Your task to perform on an android device: delete browsing data in the chrome app Image 0: 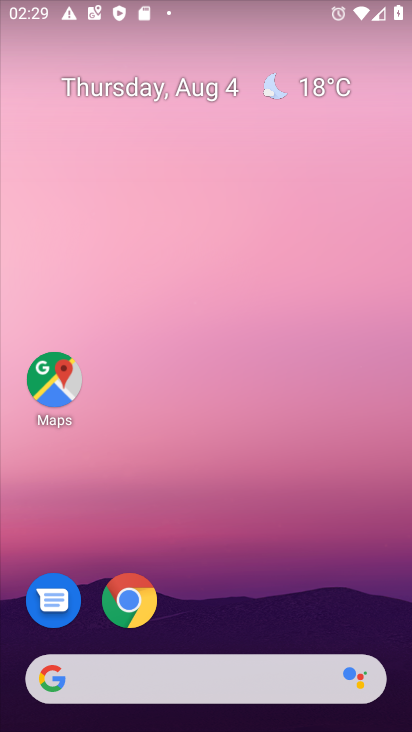
Step 0: click (126, 602)
Your task to perform on an android device: delete browsing data in the chrome app Image 1: 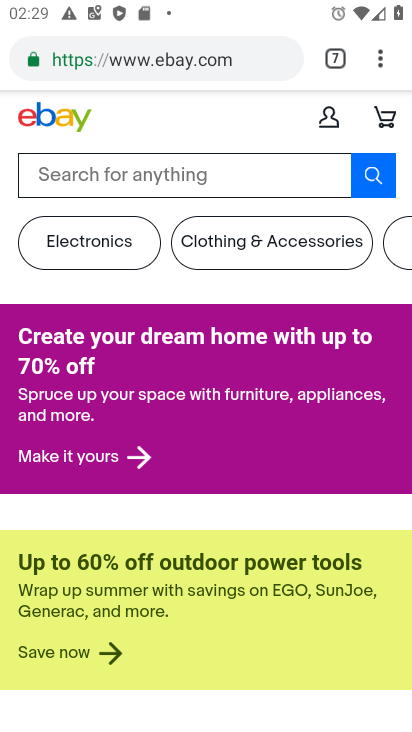
Step 1: drag from (383, 53) to (237, 633)
Your task to perform on an android device: delete browsing data in the chrome app Image 2: 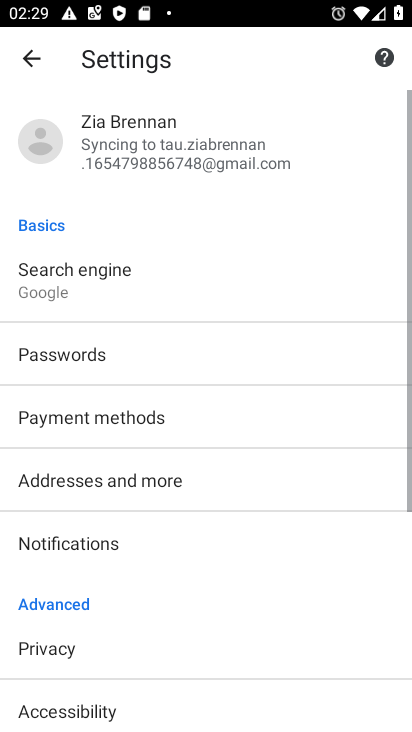
Step 2: drag from (203, 656) to (293, 270)
Your task to perform on an android device: delete browsing data in the chrome app Image 3: 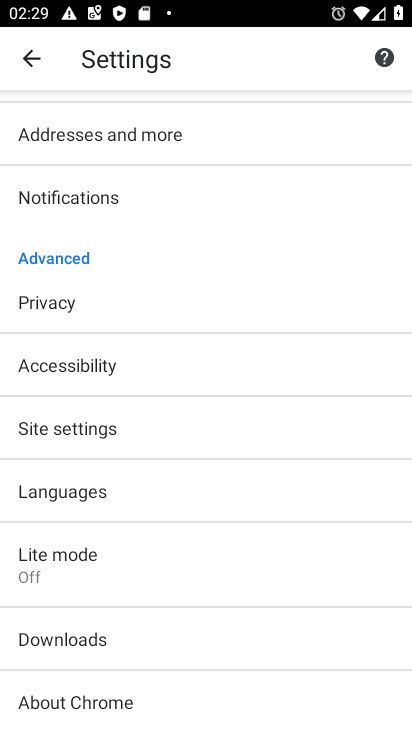
Step 3: click (65, 304)
Your task to perform on an android device: delete browsing data in the chrome app Image 4: 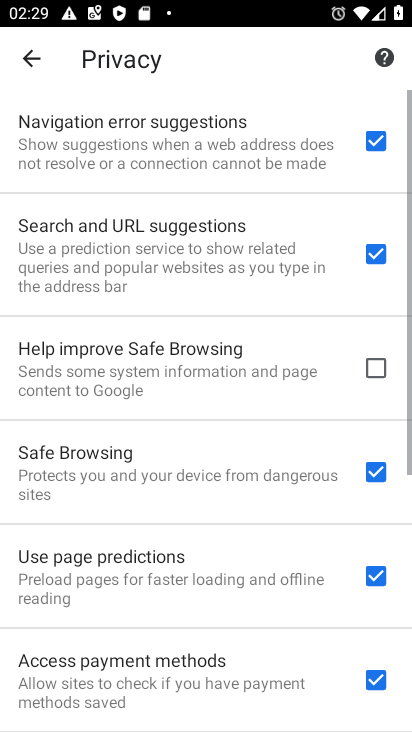
Step 4: drag from (260, 674) to (390, 110)
Your task to perform on an android device: delete browsing data in the chrome app Image 5: 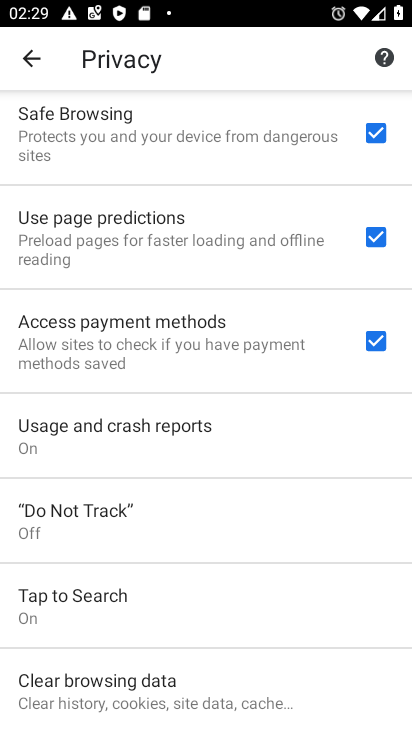
Step 5: click (157, 699)
Your task to perform on an android device: delete browsing data in the chrome app Image 6: 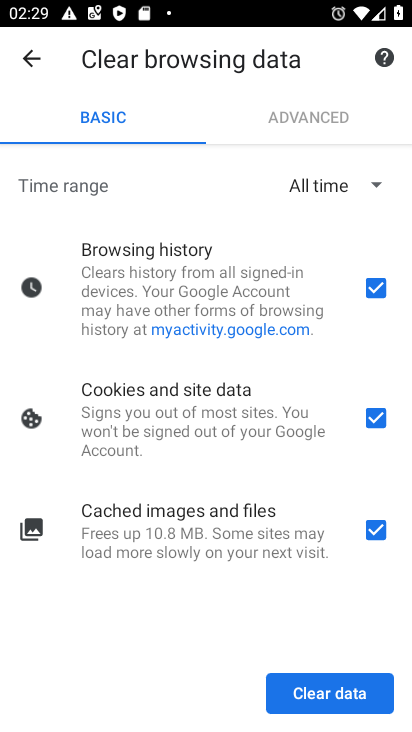
Step 6: click (376, 519)
Your task to perform on an android device: delete browsing data in the chrome app Image 7: 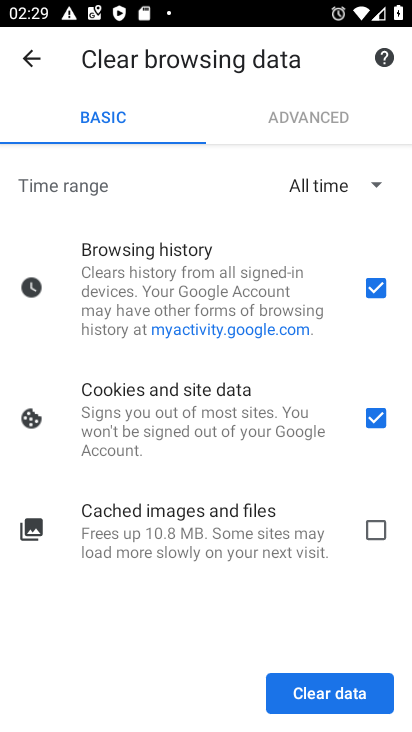
Step 7: click (374, 531)
Your task to perform on an android device: delete browsing data in the chrome app Image 8: 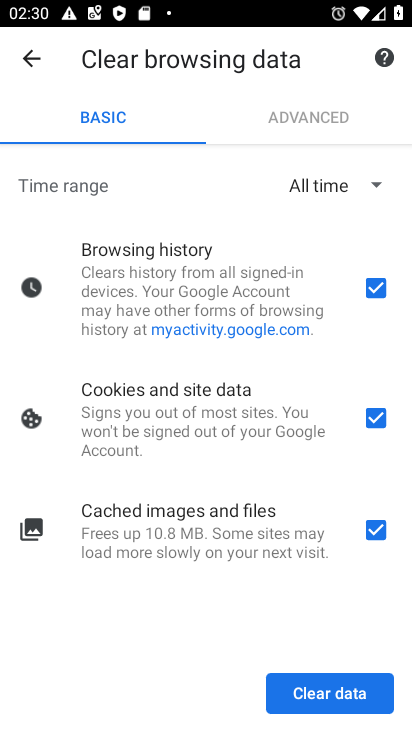
Step 8: click (337, 693)
Your task to perform on an android device: delete browsing data in the chrome app Image 9: 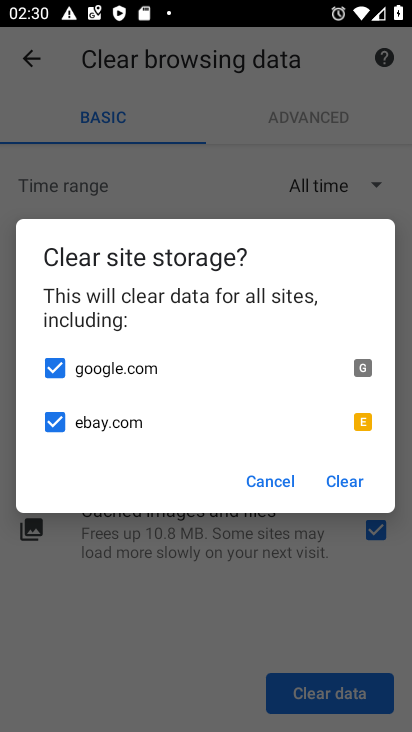
Step 9: click (345, 476)
Your task to perform on an android device: delete browsing data in the chrome app Image 10: 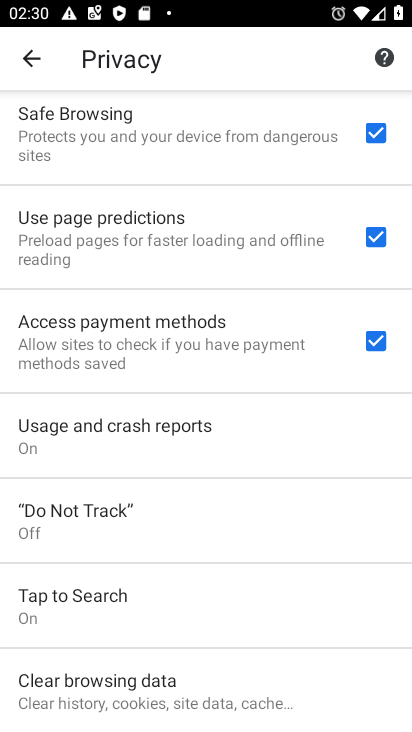
Step 10: task complete